Your task to perform on an android device: toggle location history Image 0: 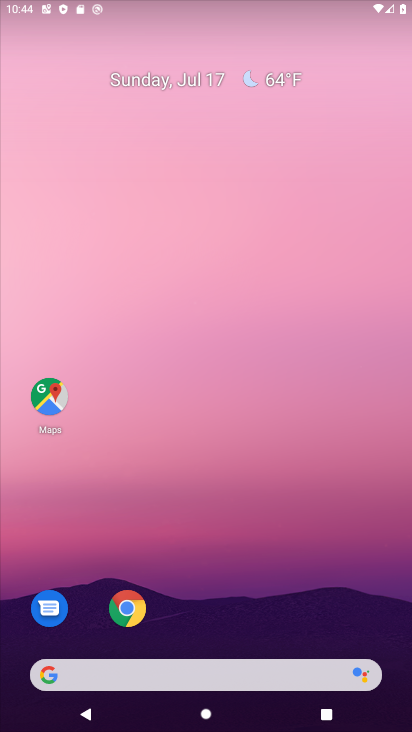
Step 0: drag from (351, 617) to (255, 1)
Your task to perform on an android device: toggle location history Image 1: 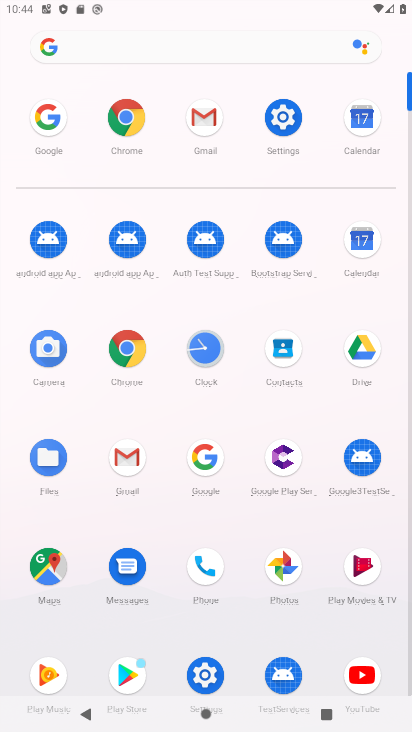
Step 1: click (287, 135)
Your task to perform on an android device: toggle location history Image 2: 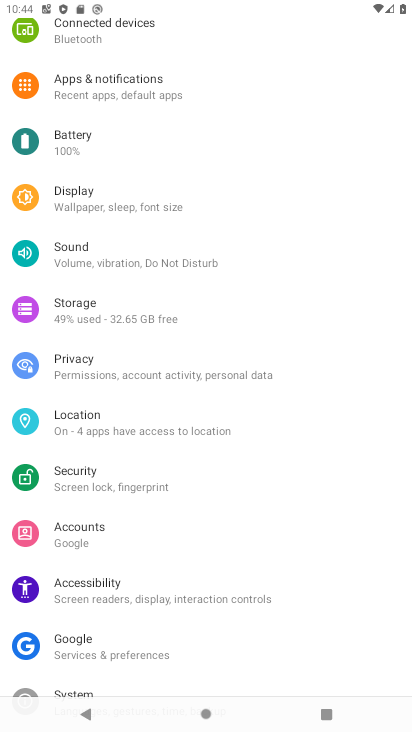
Step 2: click (94, 426)
Your task to perform on an android device: toggle location history Image 3: 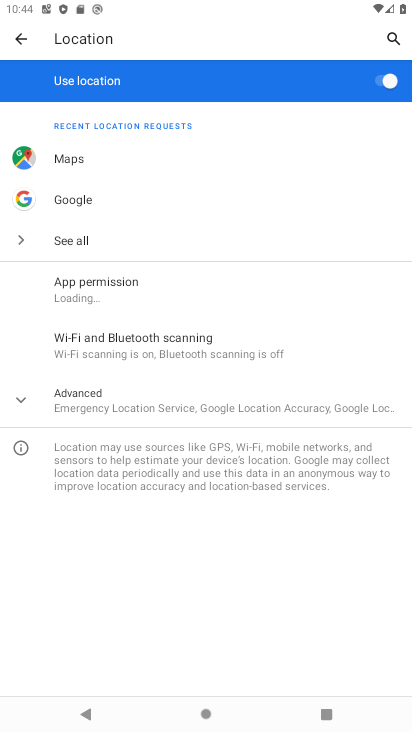
Step 3: click (170, 413)
Your task to perform on an android device: toggle location history Image 4: 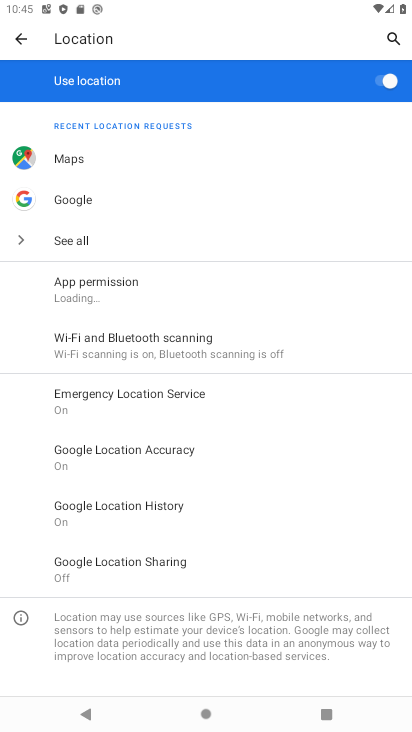
Step 4: click (126, 513)
Your task to perform on an android device: toggle location history Image 5: 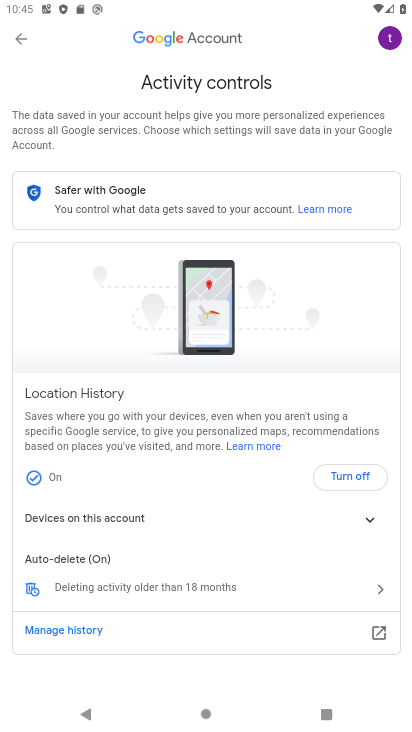
Step 5: click (356, 456)
Your task to perform on an android device: toggle location history Image 6: 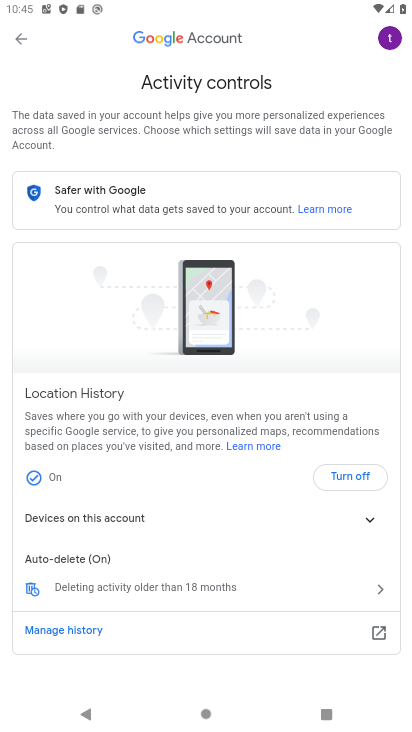
Step 6: click (350, 471)
Your task to perform on an android device: toggle location history Image 7: 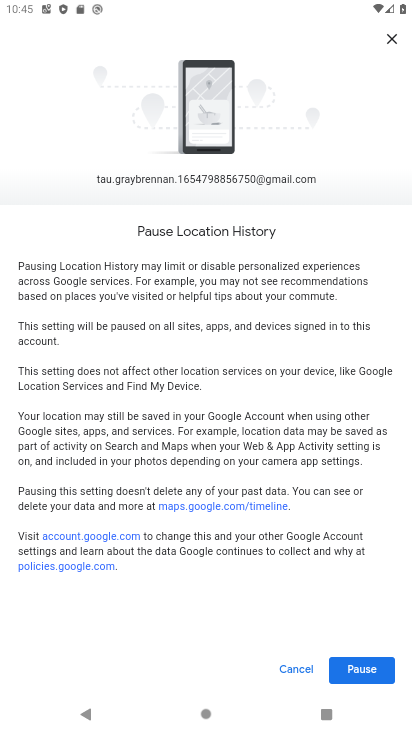
Step 7: click (366, 677)
Your task to perform on an android device: toggle location history Image 8: 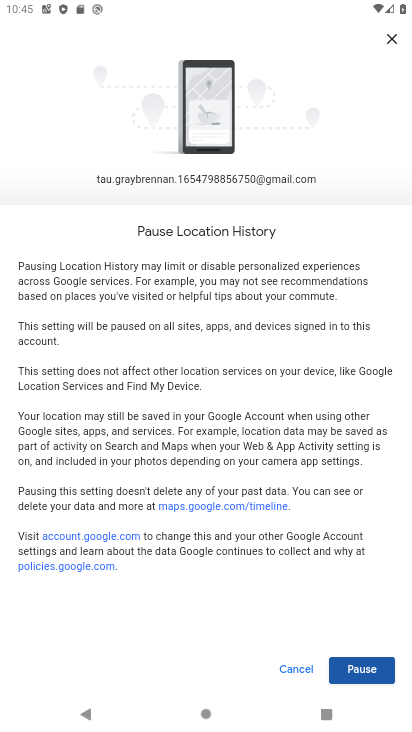
Step 8: task complete